Your task to perform on an android device: change your default location settings in chrome Image 0: 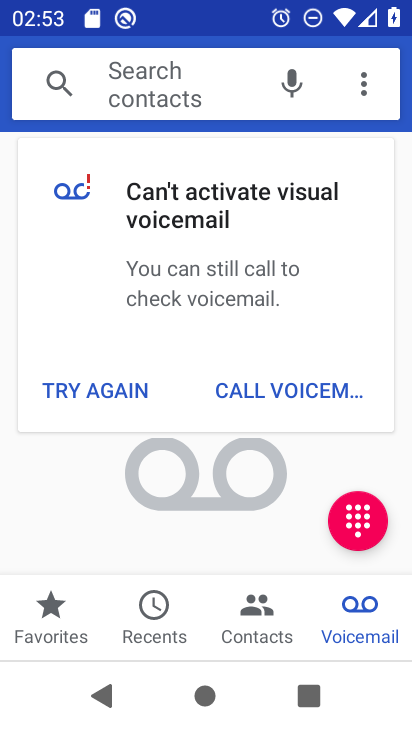
Step 0: press home button
Your task to perform on an android device: change your default location settings in chrome Image 1: 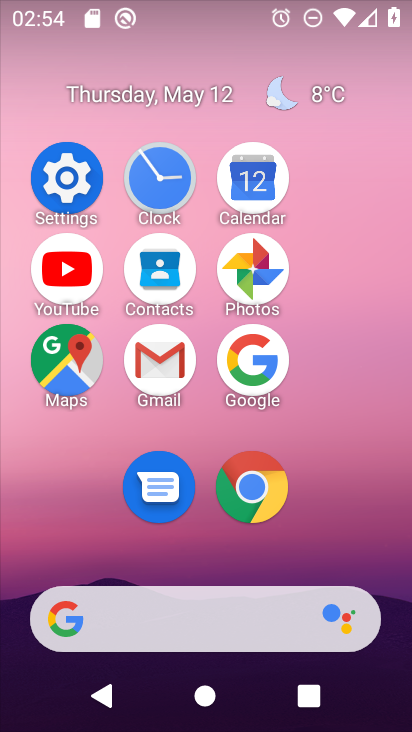
Step 1: click (254, 489)
Your task to perform on an android device: change your default location settings in chrome Image 2: 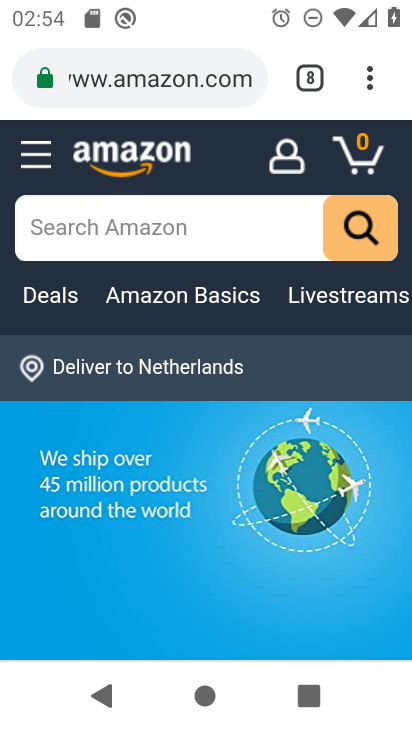
Step 2: click (384, 82)
Your task to perform on an android device: change your default location settings in chrome Image 3: 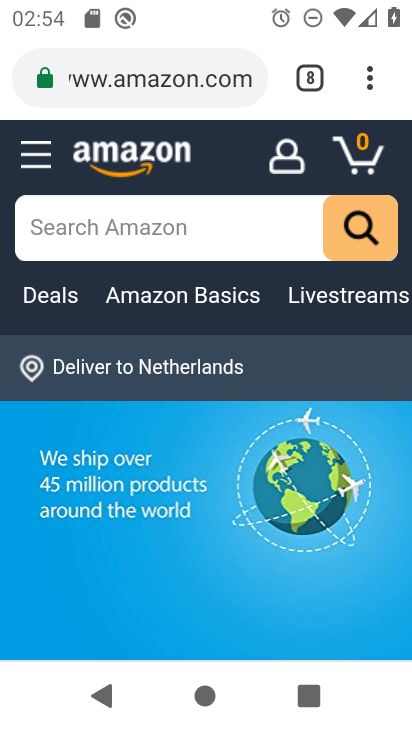
Step 3: click (369, 71)
Your task to perform on an android device: change your default location settings in chrome Image 4: 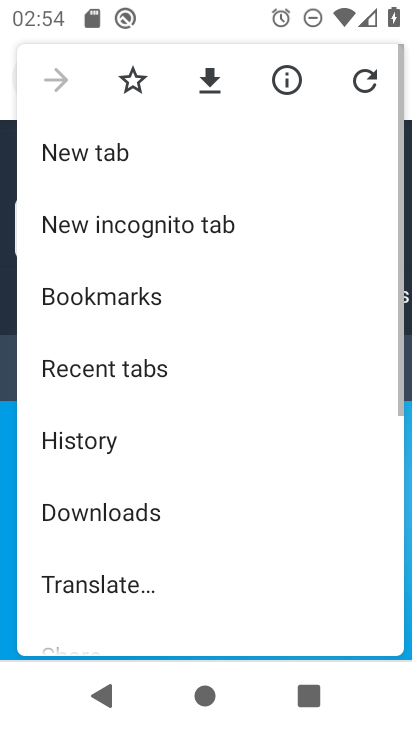
Step 4: drag from (201, 594) to (256, 177)
Your task to perform on an android device: change your default location settings in chrome Image 5: 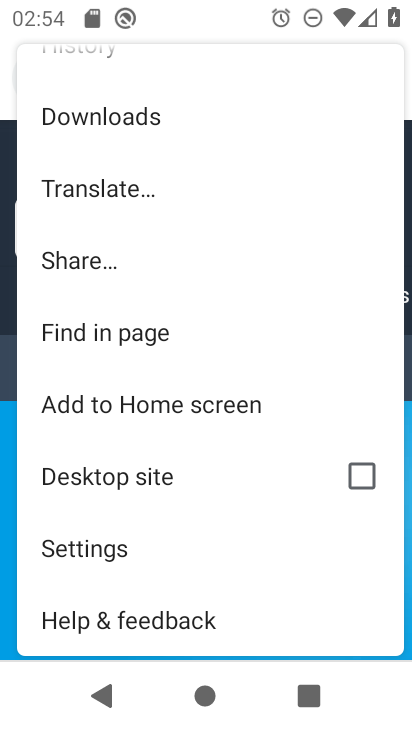
Step 5: click (161, 541)
Your task to perform on an android device: change your default location settings in chrome Image 6: 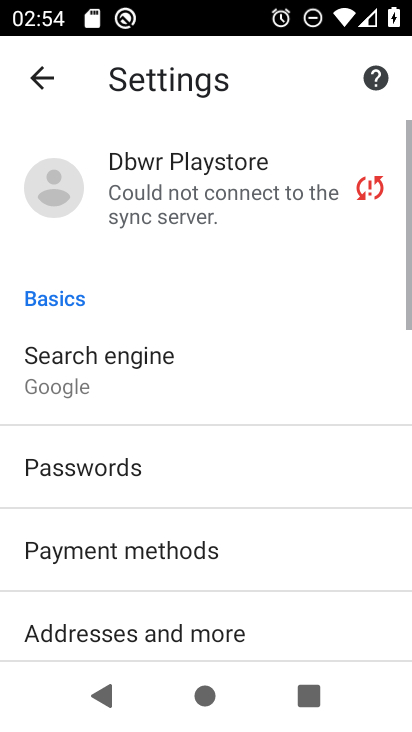
Step 6: drag from (190, 548) to (234, 230)
Your task to perform on an android device: change your default location settings in chrome Image 7: 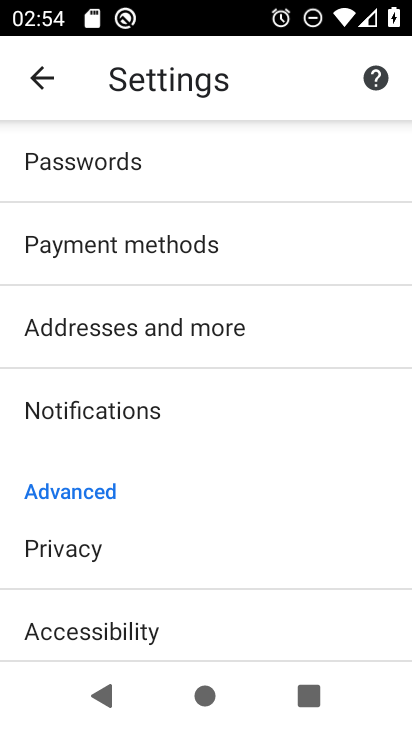
Step 7: drag from (211, 523) to (248, 196)
Your task to perform on an android device: change your default location settings in chrome Image 8: 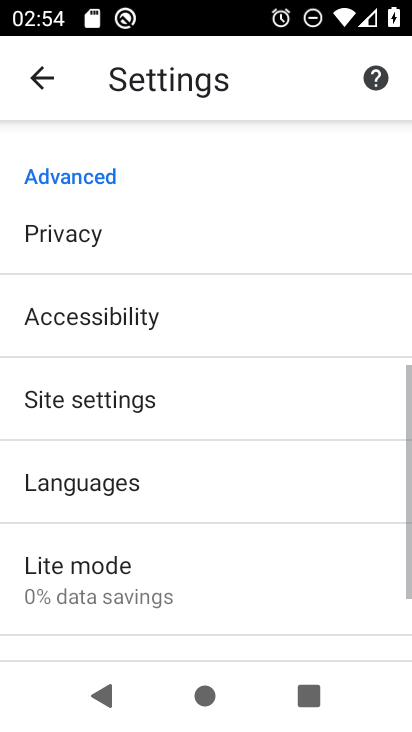
Step 8: drag from (261, 585) to (260, 267)
Your task to perform on an android device: change your default location settings in chrome Image 9: 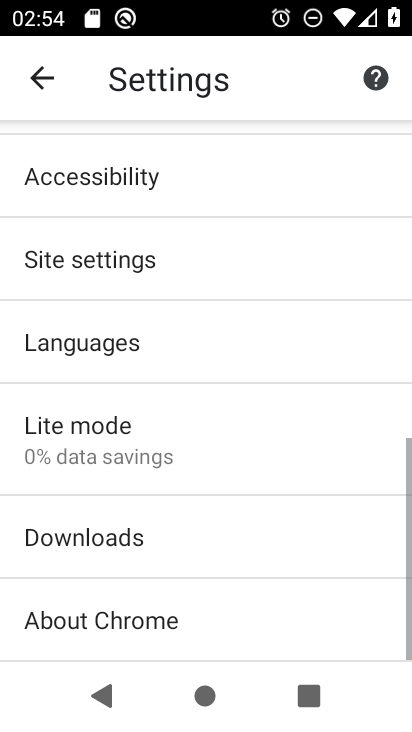
Step 9: click (263, 259)
Your task to perform on an android device: change your default location settings in chrome Image 10: 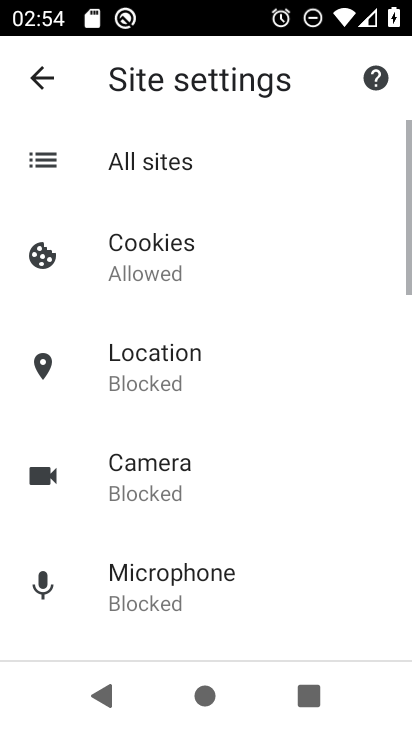
Step 10: click (245, 377)
Your task to perform on an android device: change your default location settings in chrome Image 11: 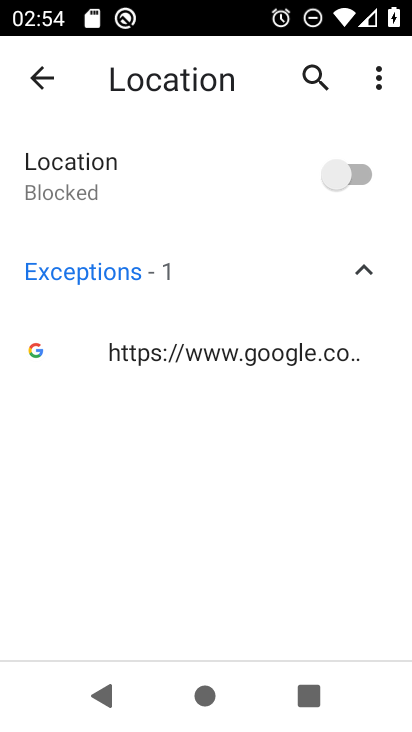
Step 11: click (348, 185)
Your task to perform on an android device: change your default location settings in chrome Image 12: 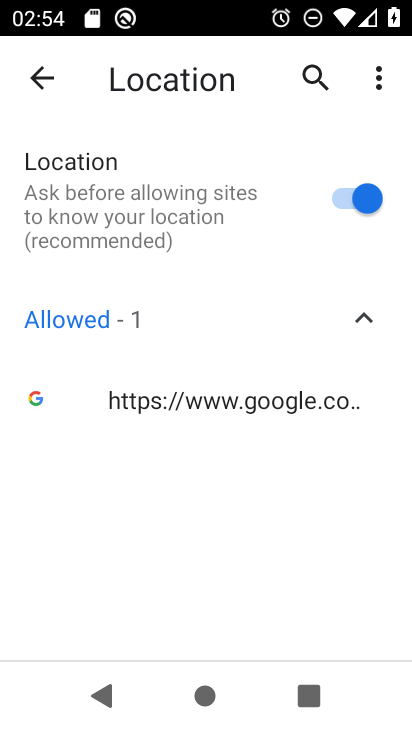
Step 12: task complete